Your task to perform on an android device: clear history in the chrome app Image 0: 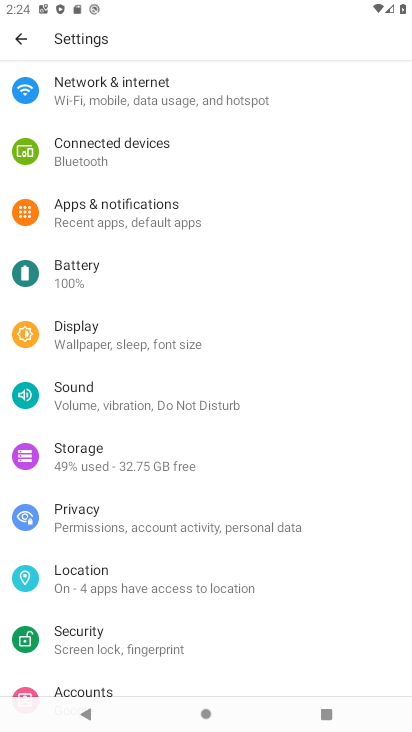
Step 0: press home button
Your task to perform on an android device: clear history in the chrome app Image 1: 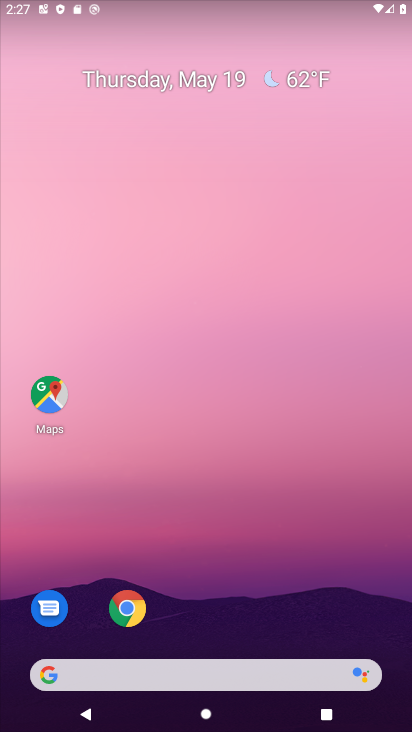
Step 1: click (124, 639)
Your task to perform on an android device: clear history in the chrome app Image 2: 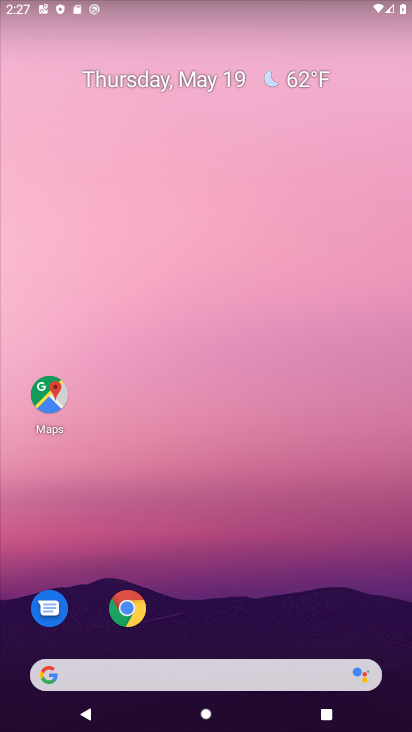
Step 2: click (124, 629)
Your task to perform on an android device: clear history in the chrome app Image 3: 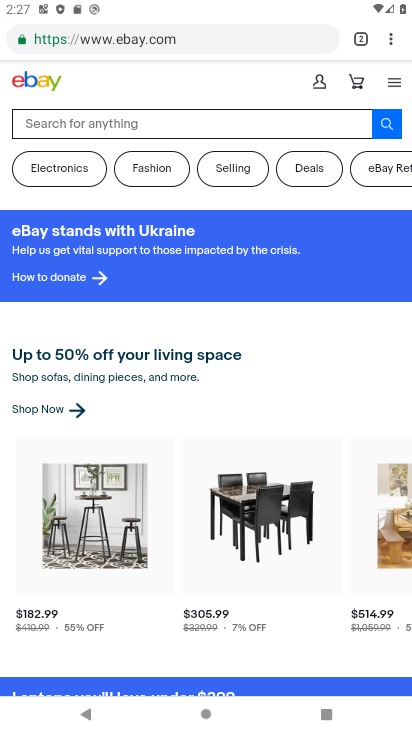
Step 3: click (394, 42)
Your task to perform on an android device: clear history in the chrome app Image 4: 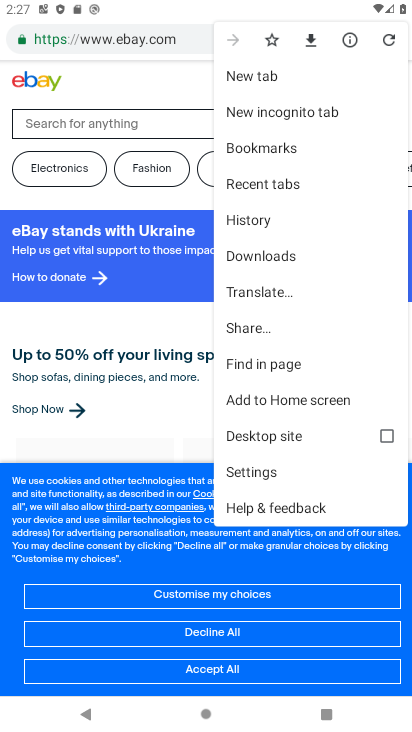
Step 4: click (299, 465)
Your task to perform on an android device: clear history in the chrome app Image 5: 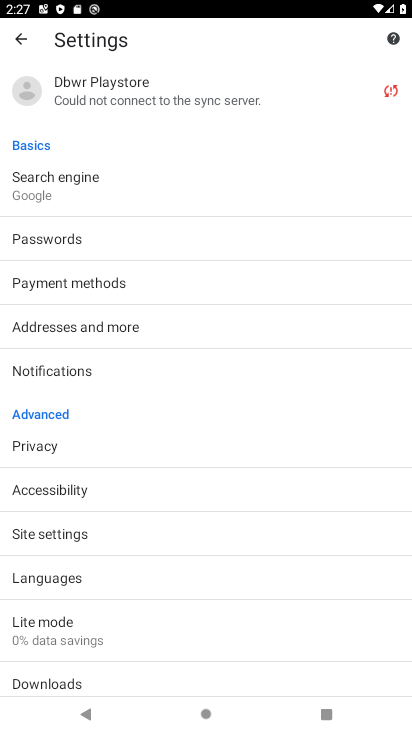
Step 5: task complete